Your task to perform on an android device: Clear the cart on bestbuy. Add dell alienware to the cart on bestbuy Image 0: 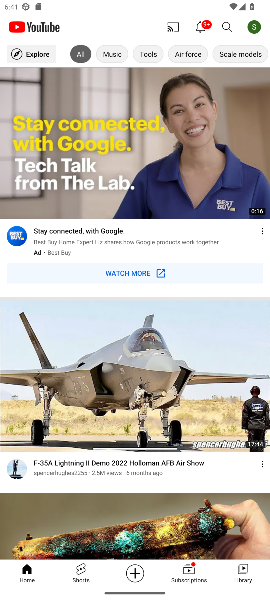
Step 0: press home button
Your task to perform on an android device: Clear the cart on bestbuy. Add dell alienware to the cart on bestbuy Image 1: 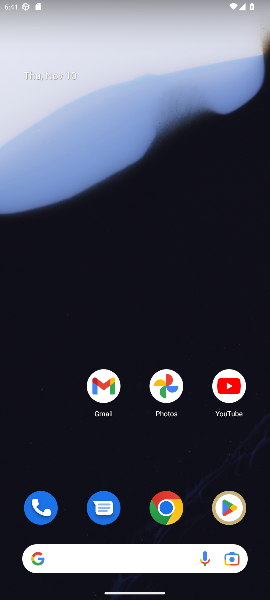
Step 1: click (166, 502)
Your task to perform on an android device: Clear the cart on bestbuy. Add dell alienware to the cart on bestbuy Image 2: 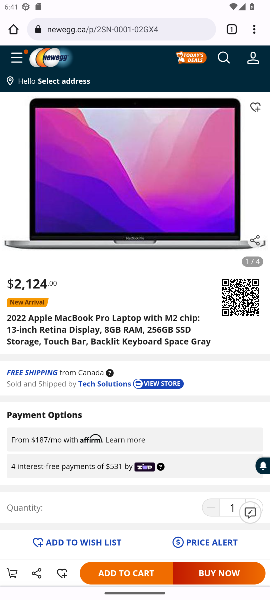
Step 2: click (158, 26)
Your task to perform on an android device: Clear the cart on bestbuy. Add dell alienware to the cart on bestbuy Image 3: 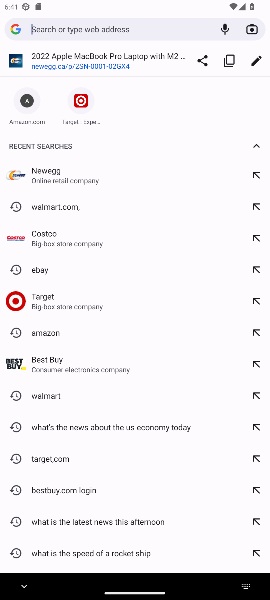
Step 3: click (44, 362)
Your task to perform on an android device: Clear the cart on bestbuy. Add dell alienware to the cart on bestbuy Image 4: 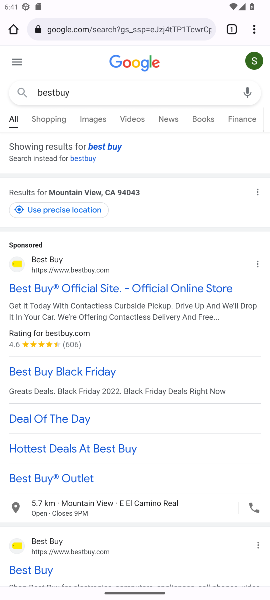
Step 4: drag from (86, 535) to (175, 300)
Your task to perform on an android device: Clear the cart on bestbuy. Add dell alienware to the cart on bestbuy Image 5: 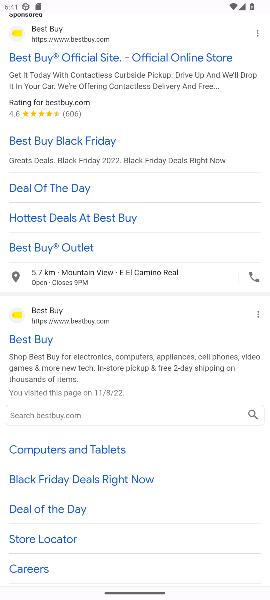
Step 5: click (33, 342)
Your task to perform on an android device: Clear the cart on bestbuy. Add dell alienware to the cart on bestbuy Image 6: 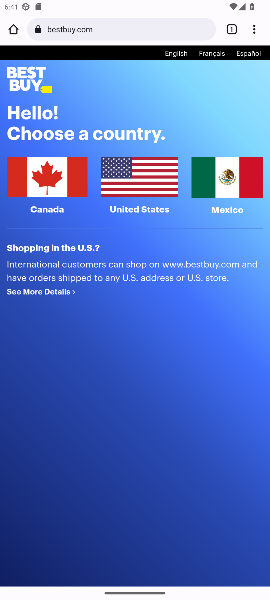
Step 6: click (45, 203)
Your task to perform on an android device: Clear the cart on bestbuy. Add dell alienware to the cart on bestbuy Image 7: 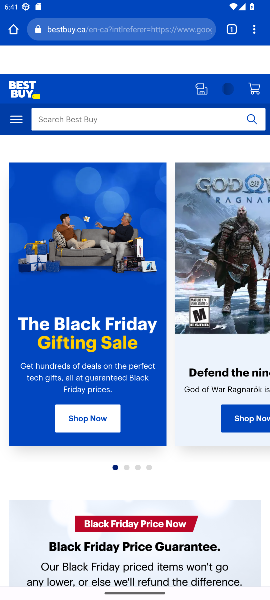
Step 7: click (145, 115)
Your task to perform on an android device: Clear the cart on bestbuy. Add dell alienware to the cart on bestbuy Image 8: 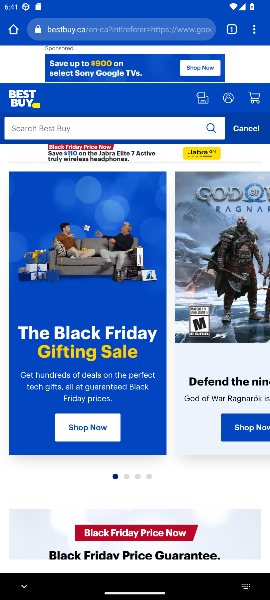
Step 8: type "dell alienware"
Your task to perform on an android device: Clear the cart on bestbuy. Add dell alienware to the cart on bestbuy Image 9: 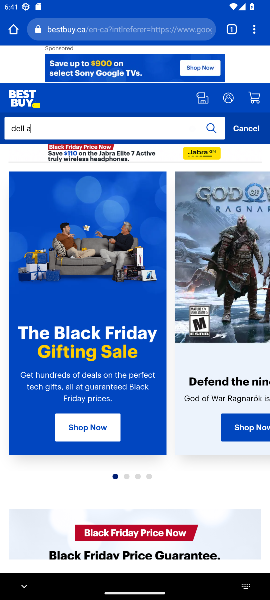
Step 9: press enter
Your task to perform on an android device: Clear the cart on bestbuy. Add dell alienware to the cart on bestbuy Image 10: 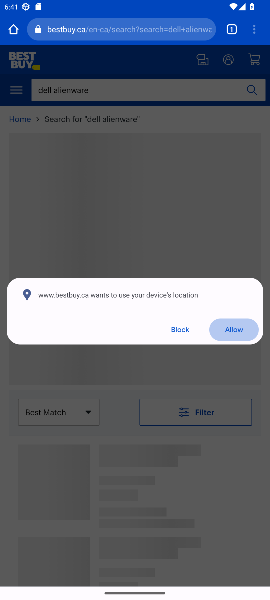
Step 10: click (235, 329)
Your task to perform on an android device: Clear the cart on bestbuy. Add dell alienware to the cart on bestbuy Image 11: 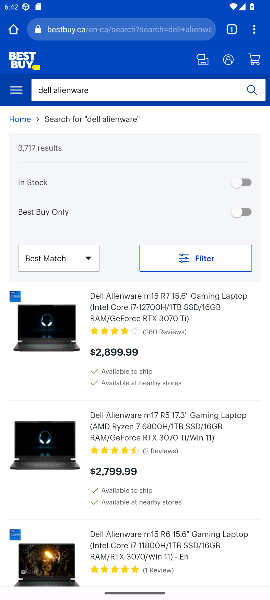
Step 11: click (145, 305)
Your task to perform on an android device: Clear the cart on bestbuy. Add dell alienware to the cart on bestbuy Image 12: 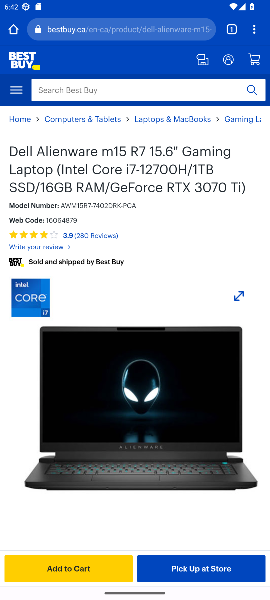
Step 12: click (78, 568)
Your task to perform on an android device: Clear the cart on bestbuy. Add dell alienware to the cart on bestbuy Image 13: 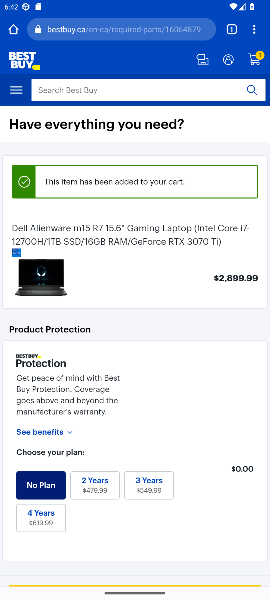
Step 13: task complete